Your task to perform on an android device: See recent photos Image 0: 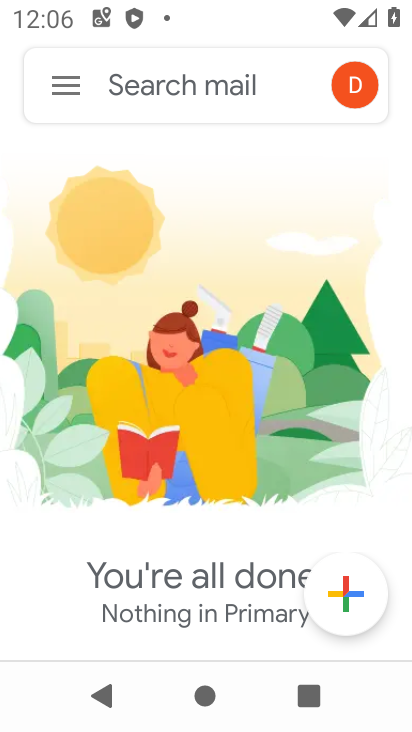
Step 0: press home button
Your task to perform on an android device: See recent photos Image 1: 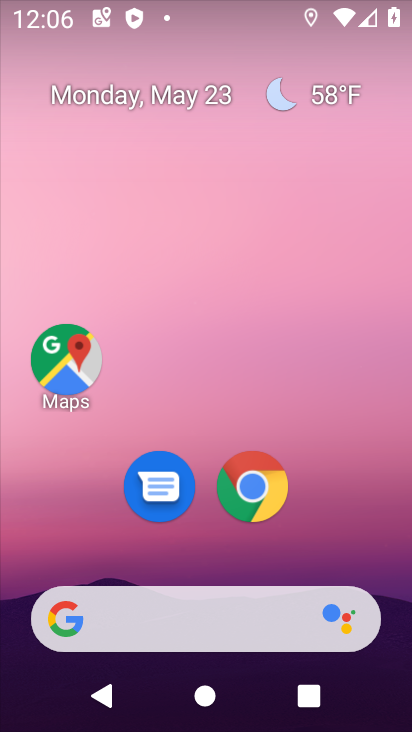
Step 1: drag from (388, 585) to (326, 50)
Your task to perform on an android device: See recent photos Image 2: 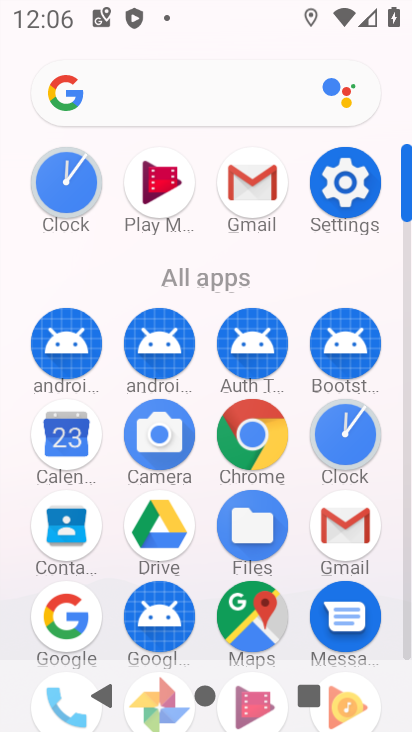
Step 2: click (407, 641)
Your task to perform on an android device: See recent photos Image 3: 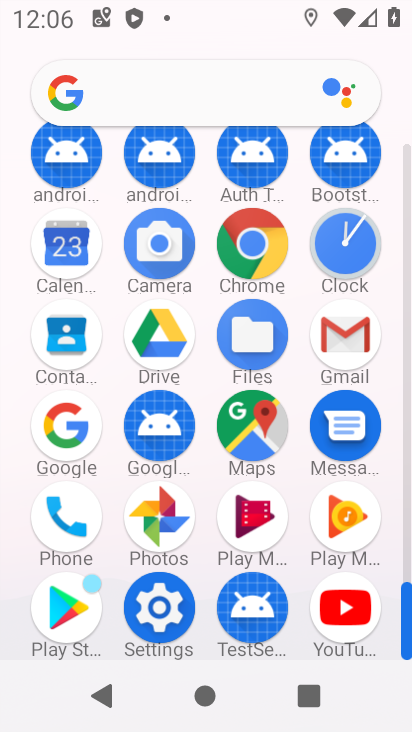
Step 3: click (157, 517)
Your task to perform on an android device: See recent photos Image 4: 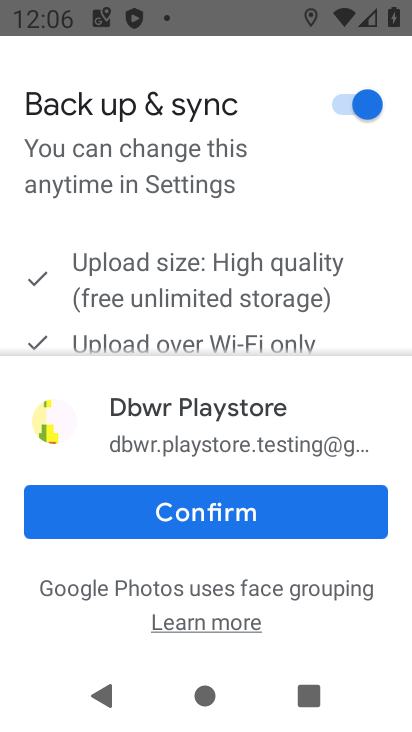
Step 4: click (201, 512)
Your task to perform on an android device: See recent photos Image 5: 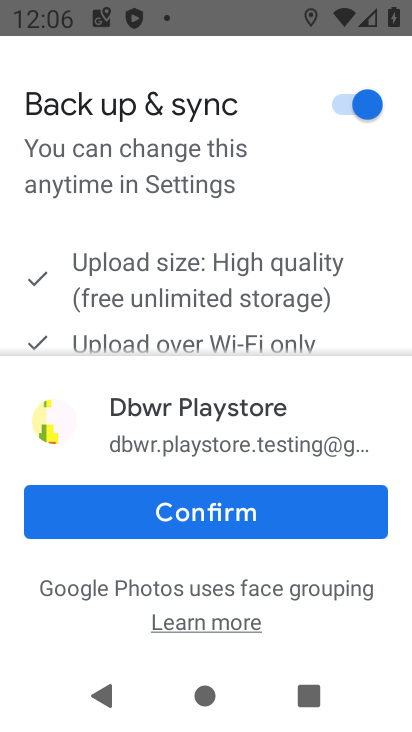
Step 5: click (201, 512)
Your task to perform on an android device: See recent photos Image 6: 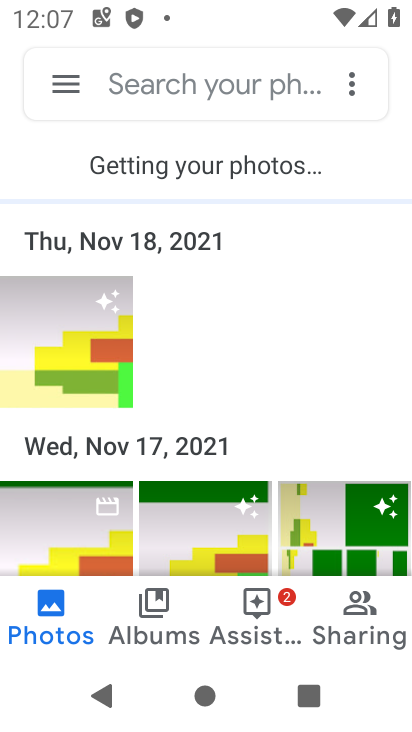
Step 6: task complete